Your task to perform on an android device: Search for "bose soundsport free" on target.com, select the first entry, and add it to the cart. Image 0: 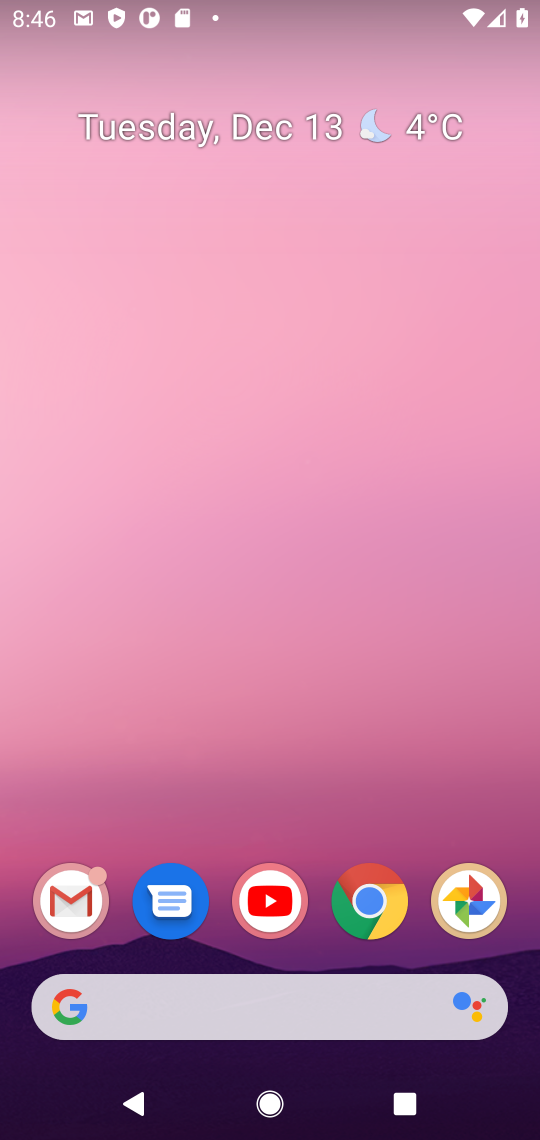
Step 0: click (380, 943)
Your task to perform on an android device: Search for "bose soundsport free" on target.com, select the first entry, and add it to the cart. Image 1: 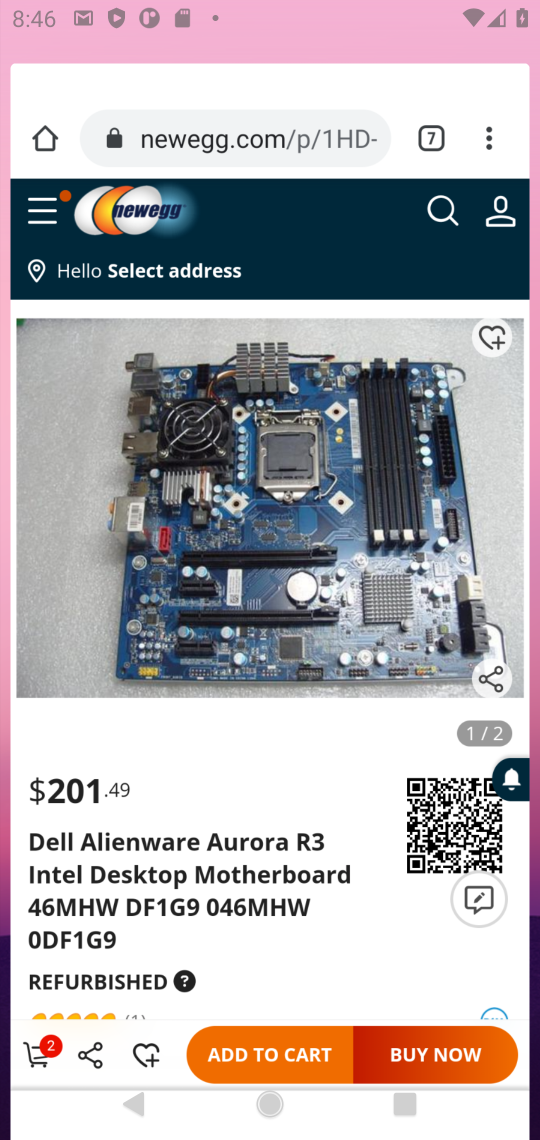
Step 1: click (366, 910)
Your task to perform on an android device: Search for "bose soundsport free" on target.com, select the first entry, and add it to the cart. Image 2: 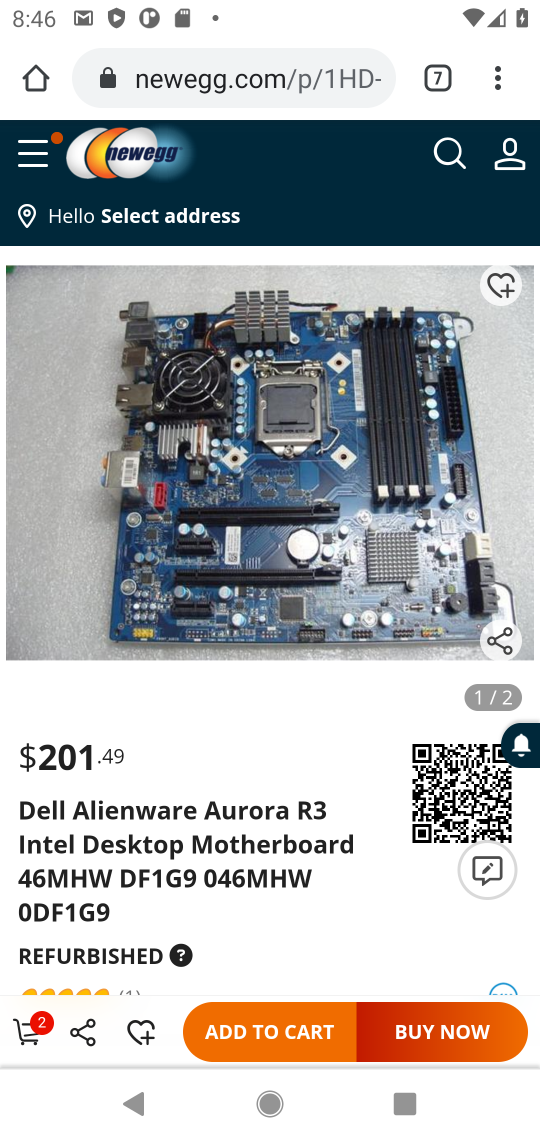
Step 2: click (447, 74)
Your task to perform on an android device: Search for "bose soundsport free" on target.com, select the first entry, and add it to the cart. Image 3: 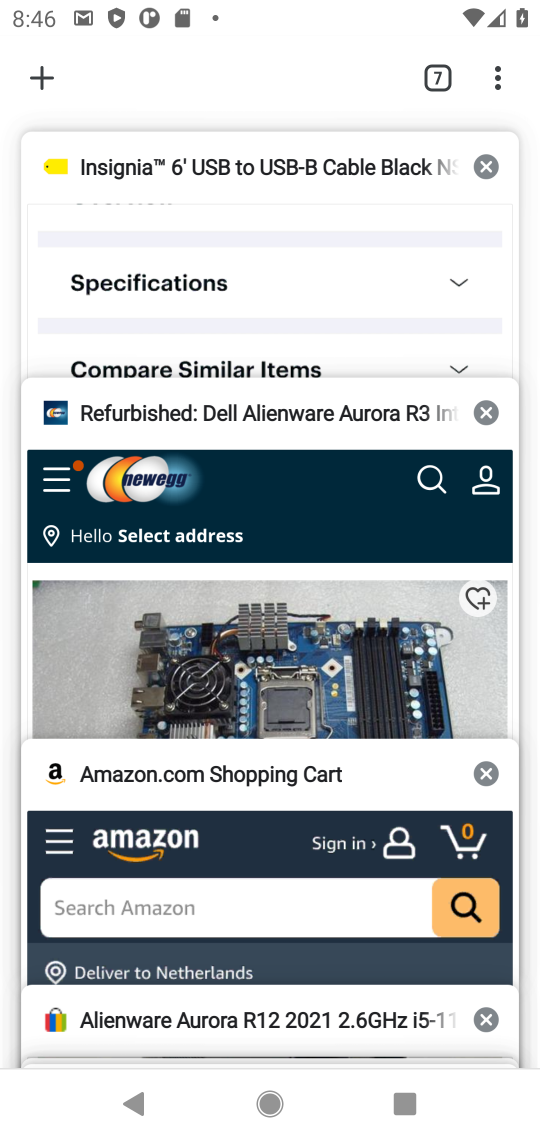
Step 3: drag from (236, 562) to (238, 500)
Your task to perform on an android device: Search for "bose soundsport free" on target.com, select the first entry, and add it to the cart. Image 4: 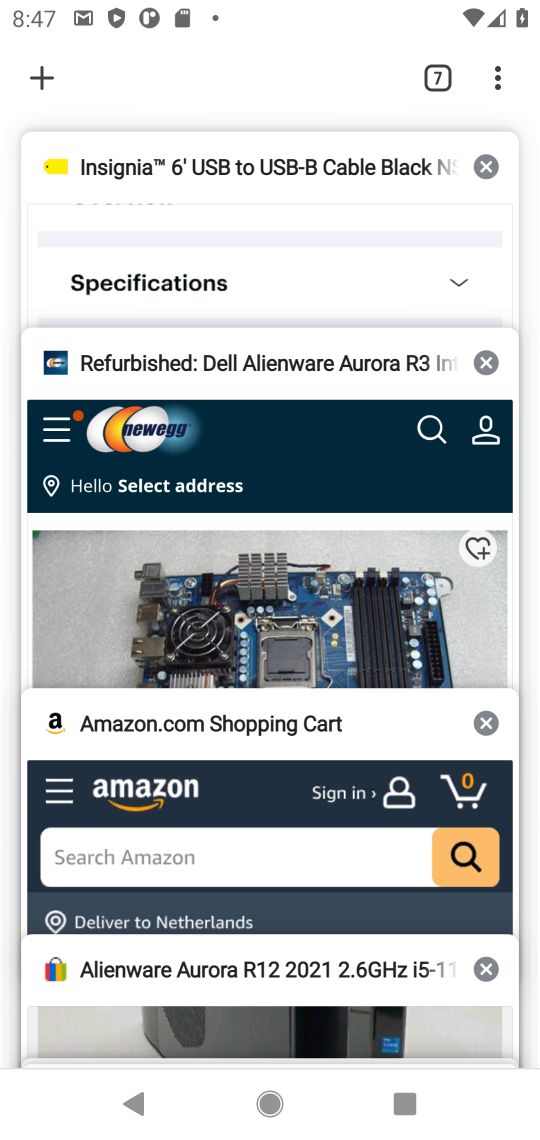
Step 4: drag from (162, 989) to (259, 502)
Your task to perform on an android device: Search for "bose soundsport free" on target.com, select the first entry, and add it to the cart. Image 5: 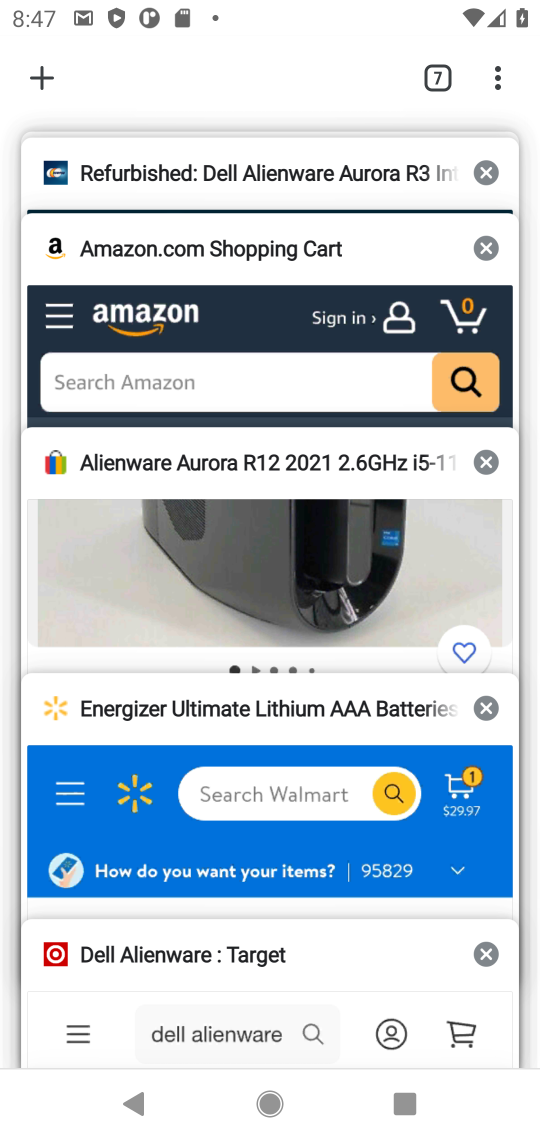
Step 5: click (121, 998)
Your task to perform on an android device: Search for "bose soundsport free" on target.com, select the first entry, and add it to the cart. Image 6: 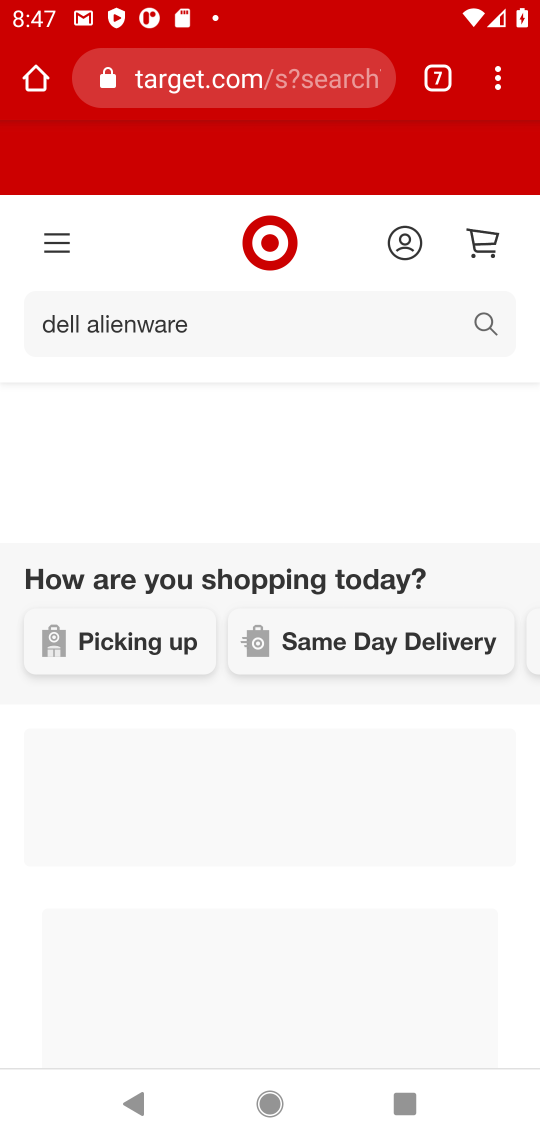
Step 6: click (276, 310)
Your task to perform on an android device: Search for "bose soundsport free" on target.com, select the first entry, and add it to the cart. Image 7: 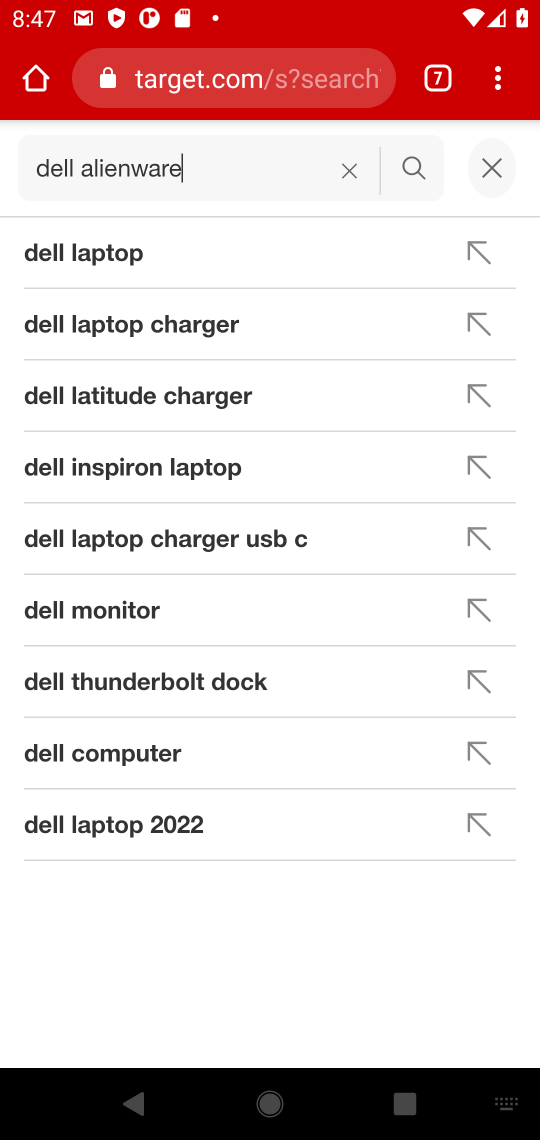
Step 7: click (340, 172)
Your task to perform on an android device: Search for "bose soundsport free" on target.com, select the first entry, and add it to the cart. Image 8: 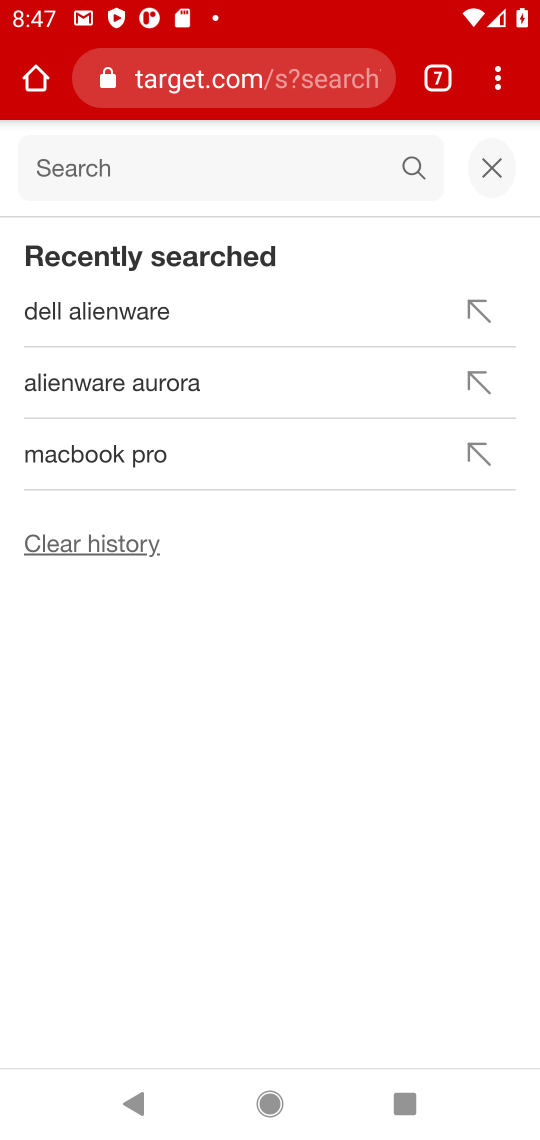
Step 8: type "bose soundsport free"
Your task to perform on an android device: Search for "bose soundsport free" on target.com, select the first entry, and add it to the cart. Image 9: 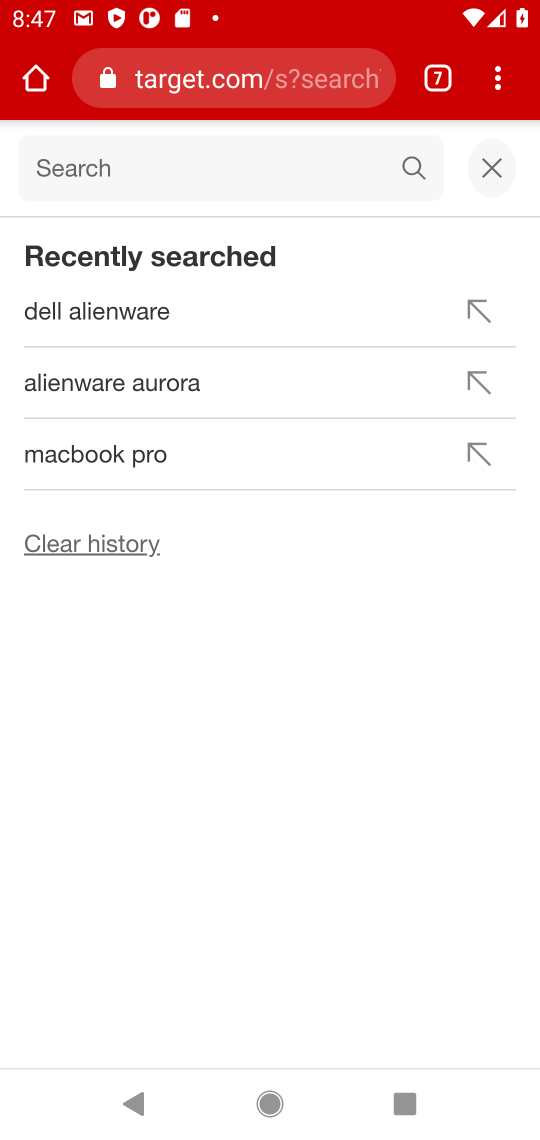
Step 9: click (166, 159)
Your task to perform on an android device: Search for "bose soundsport free" on target.com, select the first entry, and add it to the cart. Image 10: 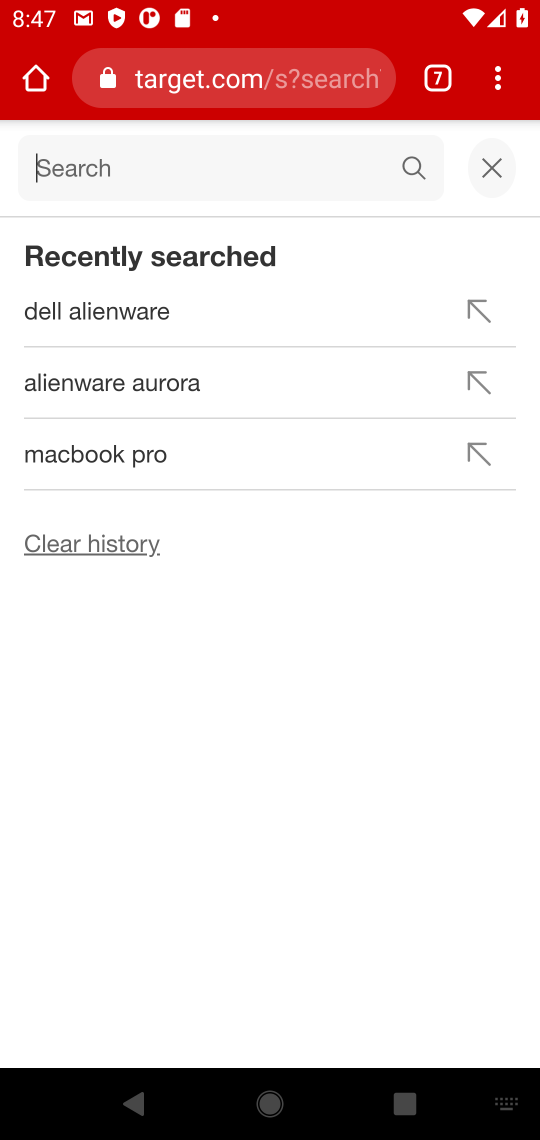
Step 10: type "bose soundsport free"
Your task to perform on an android device: Search for "bose soundsport free" on target.com, select the first entry, and add it to the cart. Image 11: 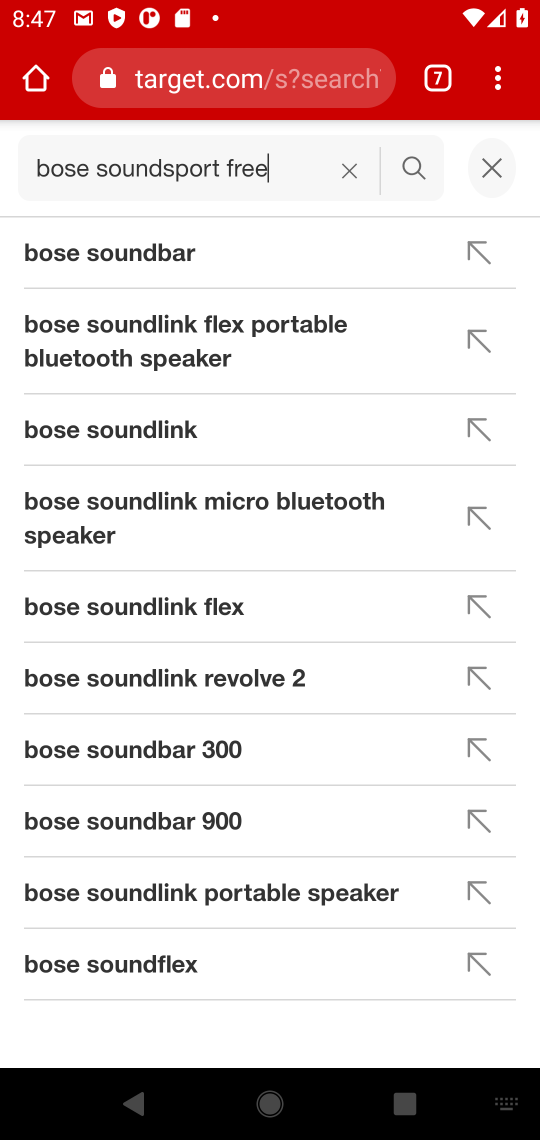
Step 11: click (412, 161)
Your task to perform on an android device: Search for "bose soundsport free" on target.com, select the first entry, and add it to the cart. Image 12: 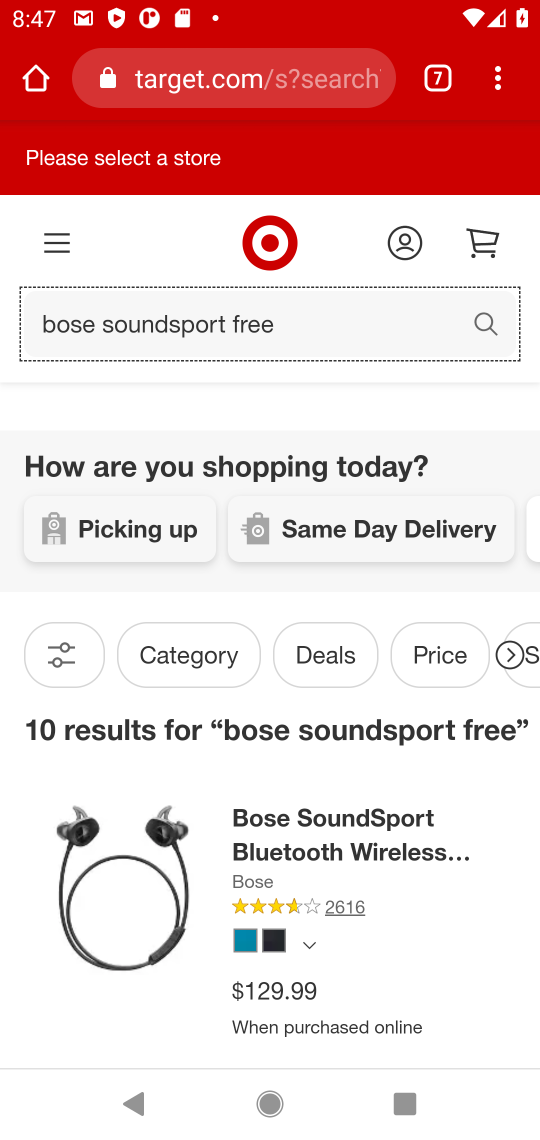
Step 12: drag from (400, 921) to (422, 678)
Your task to perform on an android device: Search for "bose soundsport free" on target.com, select the first entry, and add it to the cart. Image 13: 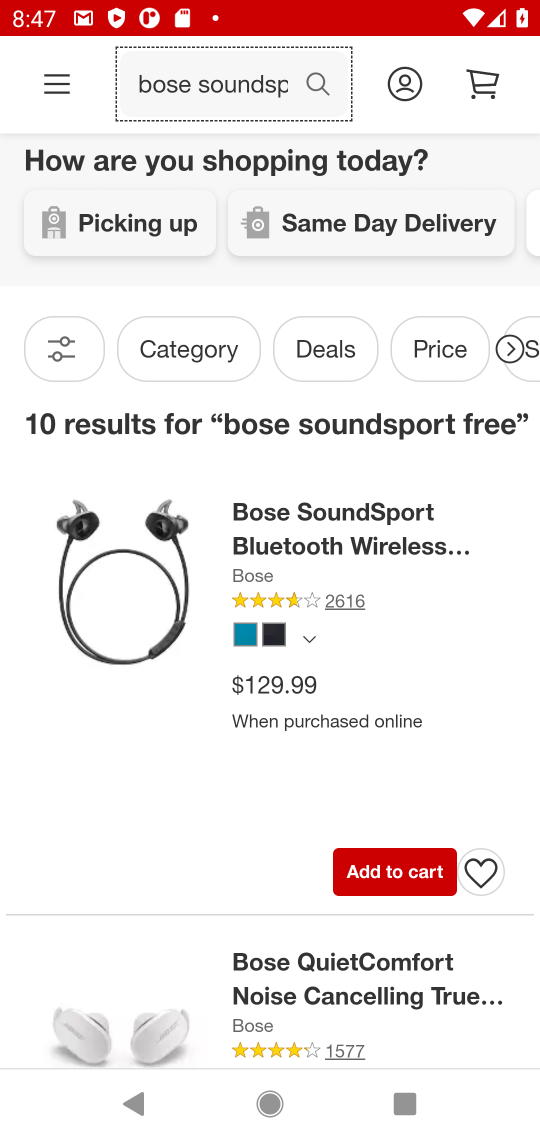
Step 13: click (389, 872)
Your task to perform on an android device: Search for "bose soundsport free" on target.com, select the first entry, and add it to the cart. Image 14: 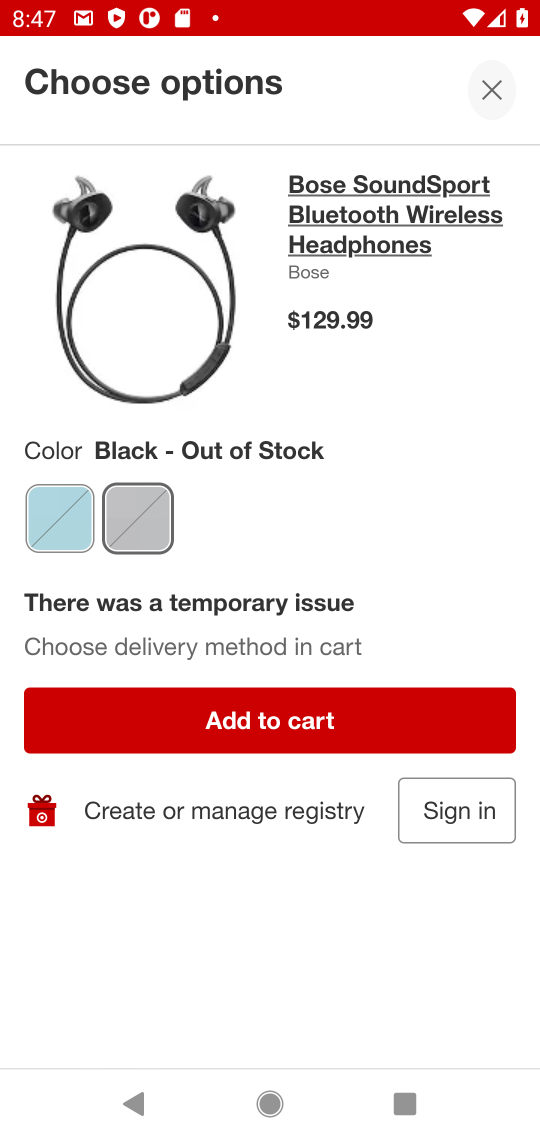
Step 14: click (411, 702)
Your task to perform on an android device: Search for "bose soundsport free" on target.com, select the first entry, and add it to the cart. Image 15: 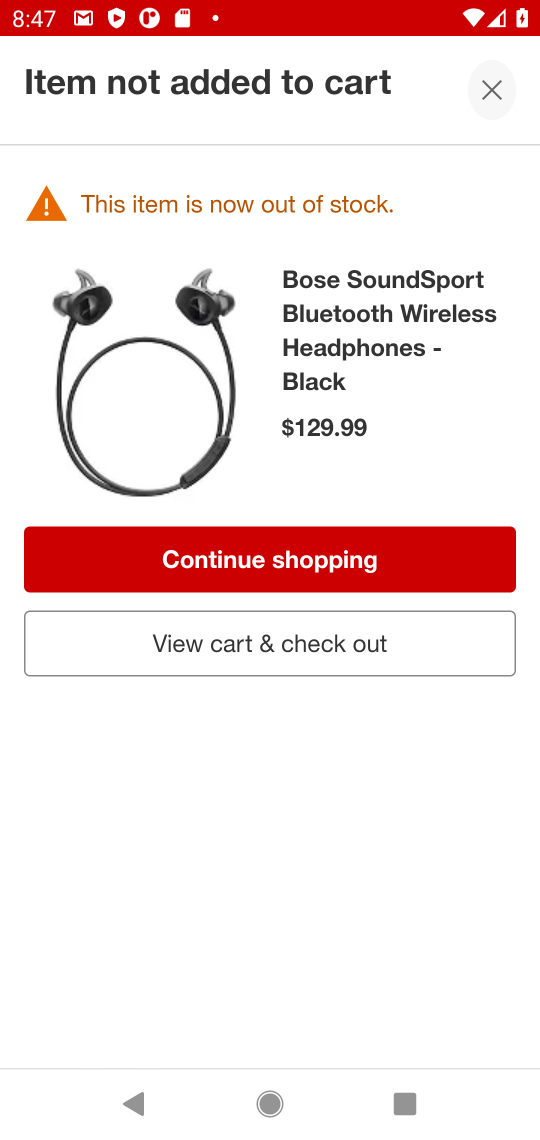
Step 15: task complete